Your task to perform on an android device: Open CNN.com Image 0: 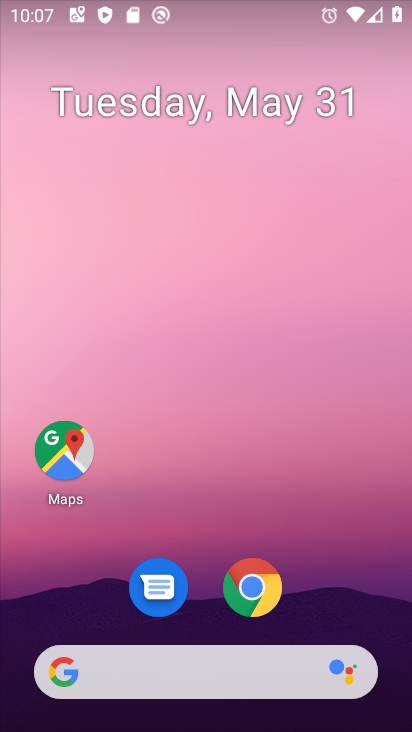
Step 0: drag from (378, 615) to (369, 225)
Your task to perform on an android device: Open CNN.com Image 1: 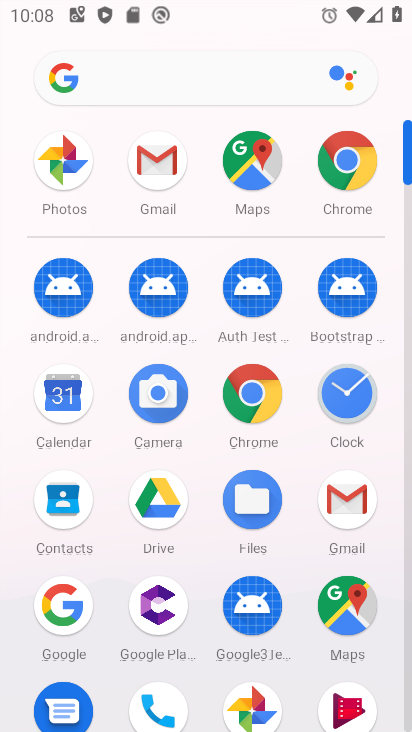
Step 1: drag from (198, 565) to (213, 347)
Your task to perform on an android device: Open CNN.com Image 2: 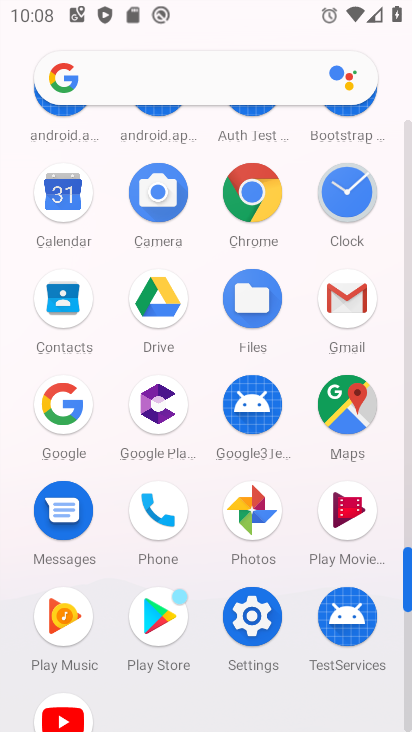
Step 2: click (253, 215)
Your task to perform on an android device: Open CNN.com Image 3: 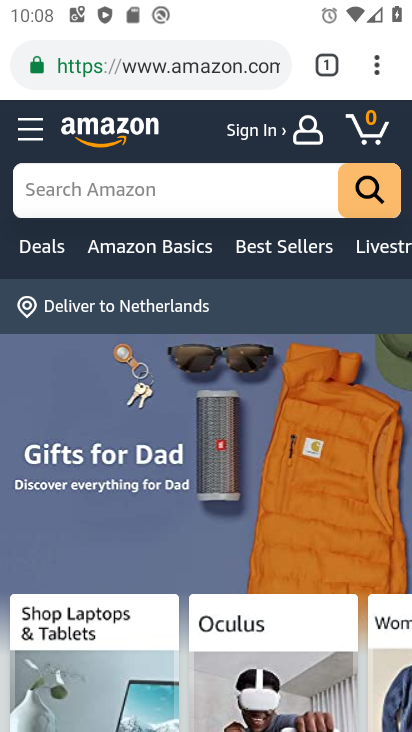
Step 3: click (229, 78)
Your task to perform on an android device: Open CNN.com Image 4: 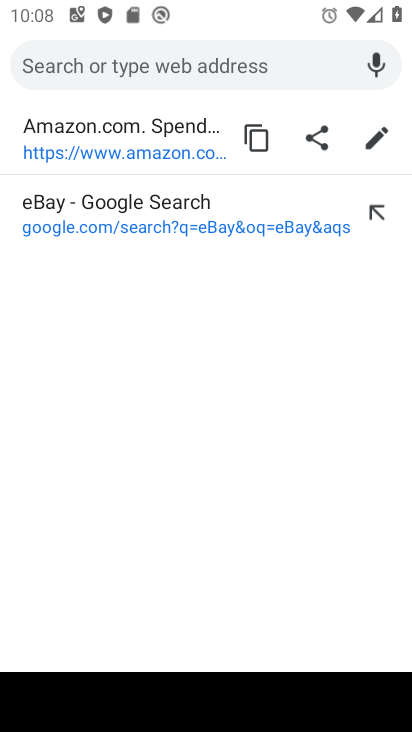
Step 4: type "cnn.com"
Your task to perform on an android device: Open CNN.com Image 5: 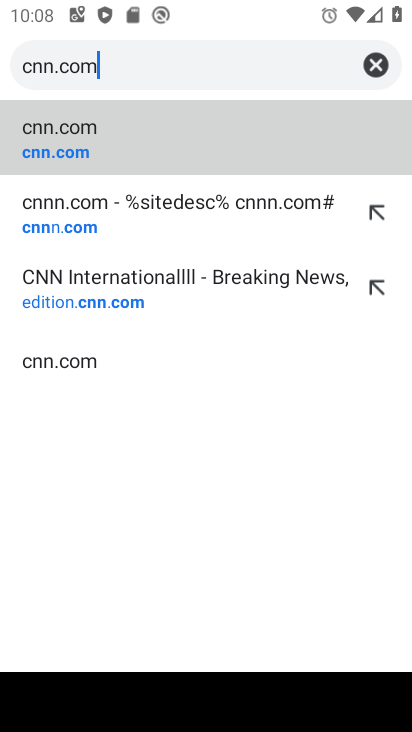
Step 5: click (147, 129)
Your task to perform on an android device: Open CNN.com Image 6: 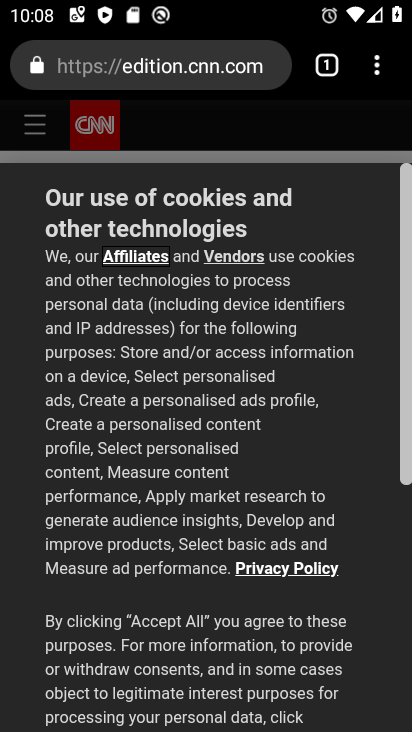
Step 6: task complete